Your task to perform on an android device: open the mobile data screen to see how much data has been used Image 0: 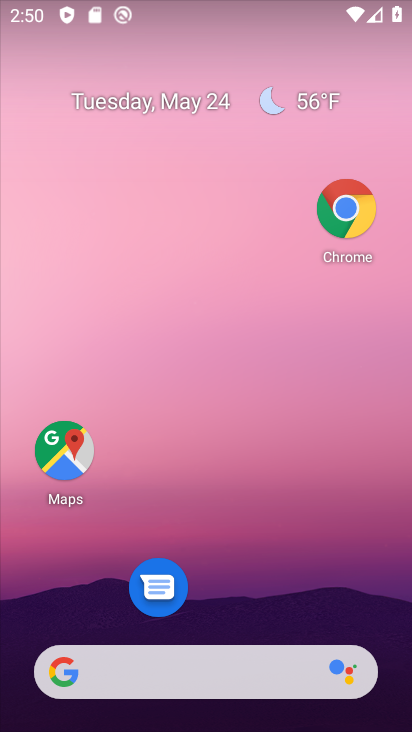
Step 0: press home button
Your task to perform on an android device: open the mobile data screen to see how much data has been used Image 1: 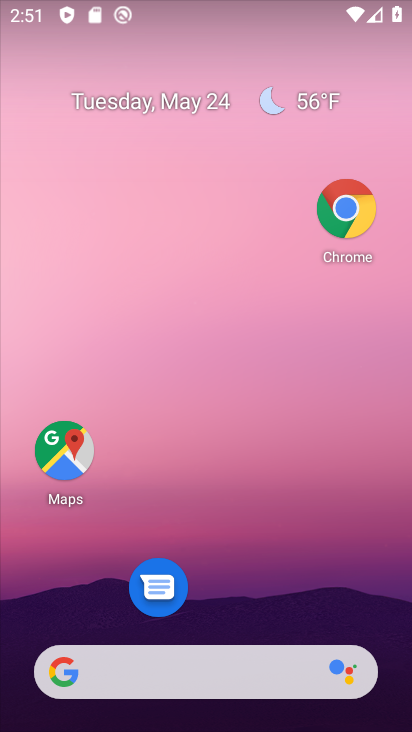
Step 1: drag from (180, 632) to (235, 219)
Your task to perform on an android device: open the mobile data screen to see how much data has been used Image 2: 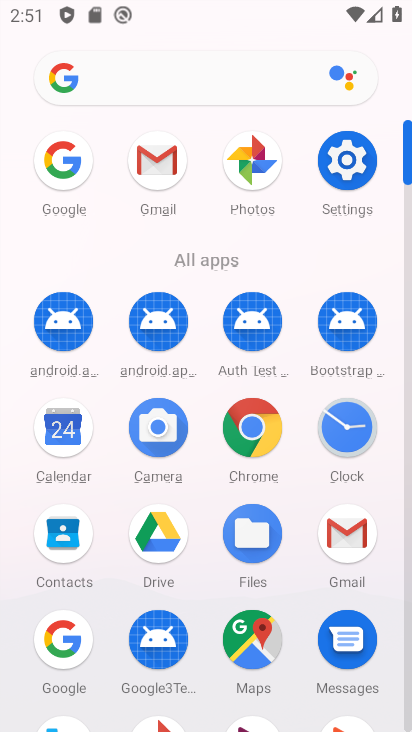
Step 2: click (349, 160)
Your task to perform on an android device: open the mobile data screen to see how much data has been used Image 3: 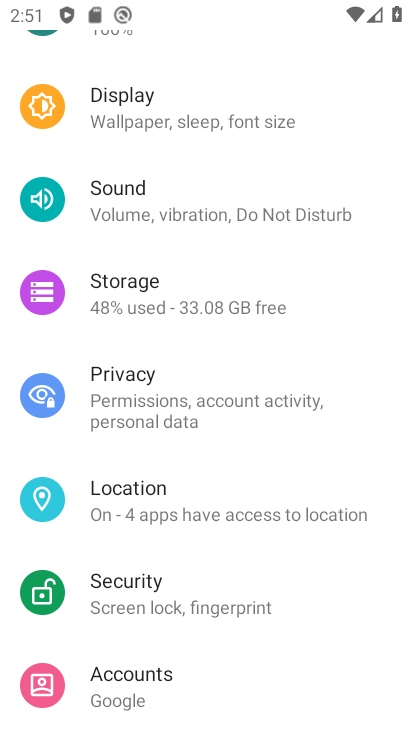
Step 3: drag from (283, 142) to (291, 557)
Your task to perform on an android device: open the mobile data screen to see how much data has been used Image 4: 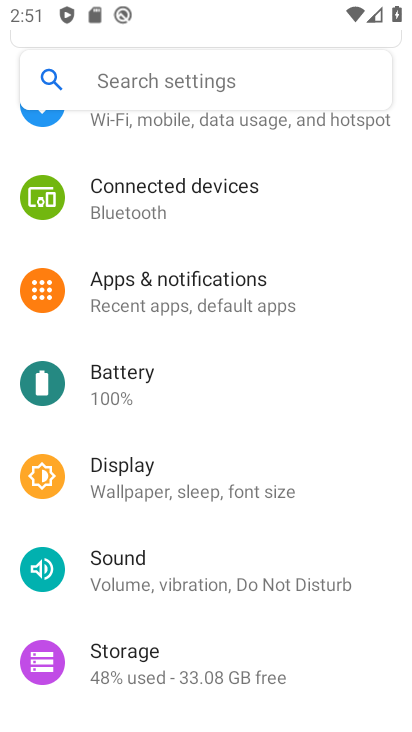
Step 4: click (206, 145)
Your task to perform on an android device: open the mobile data screen to see how much data has been used Image 5: 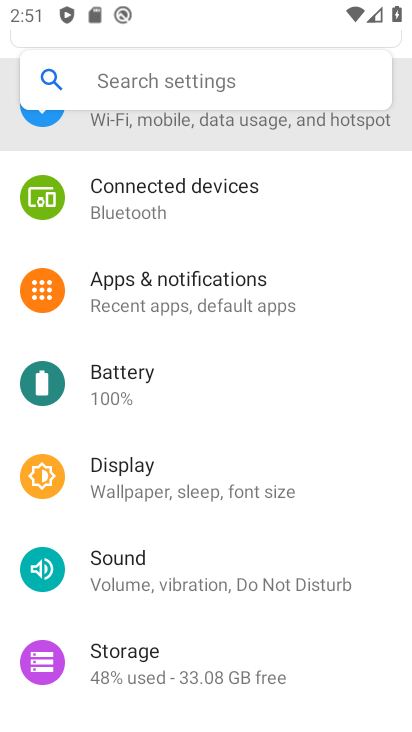
Step 5: click (208, 121)
Your task to perform on an android device: open the mobile data screen to see how much data has been used Image 6: 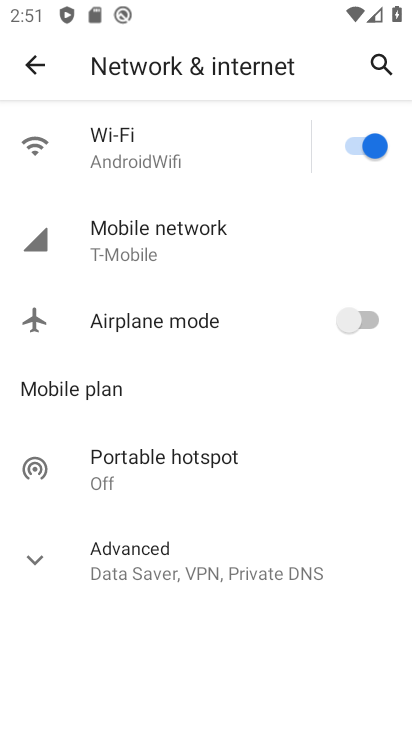
Step 6: click (172, 239)
Your task to perform on an android device: open the mobile data screen to see how much data has been used Image 7: 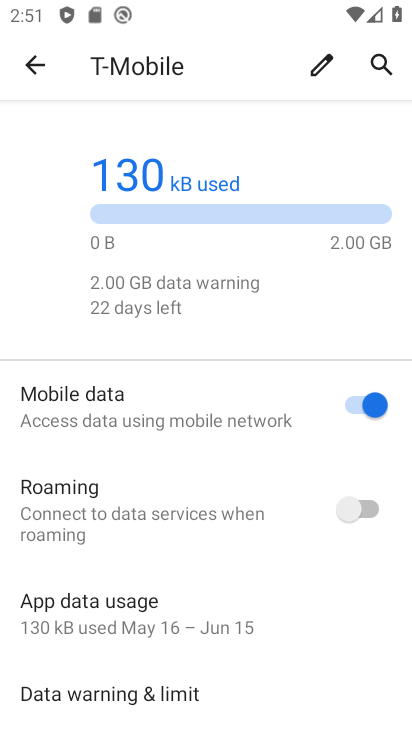
Step 7: task complete